Your task to perform on an android device: Add "usb-a to usb-b" to the cart on ebay.com Image 0: 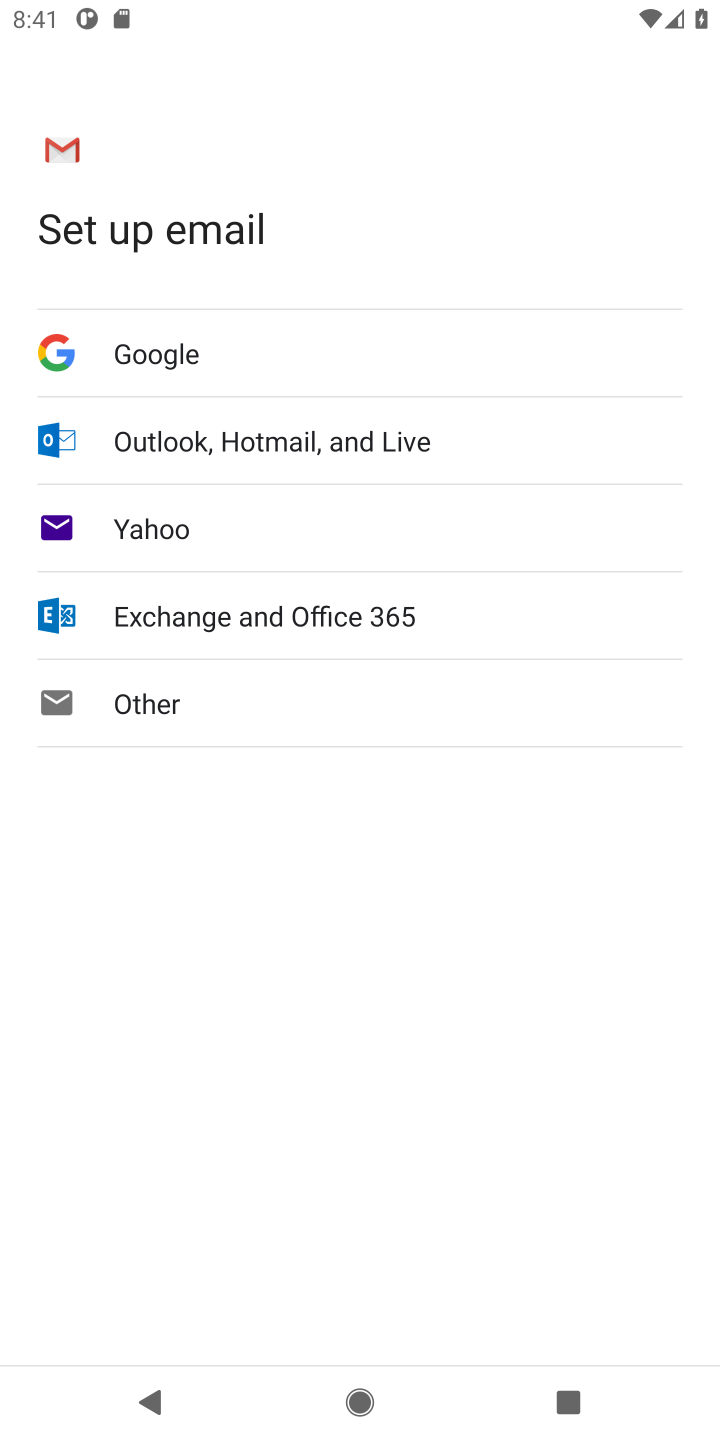
Step 0: press home button
Your task to perform on an android device: Add "usb-a to usb-b" to the cart on ebay.com Image 1: 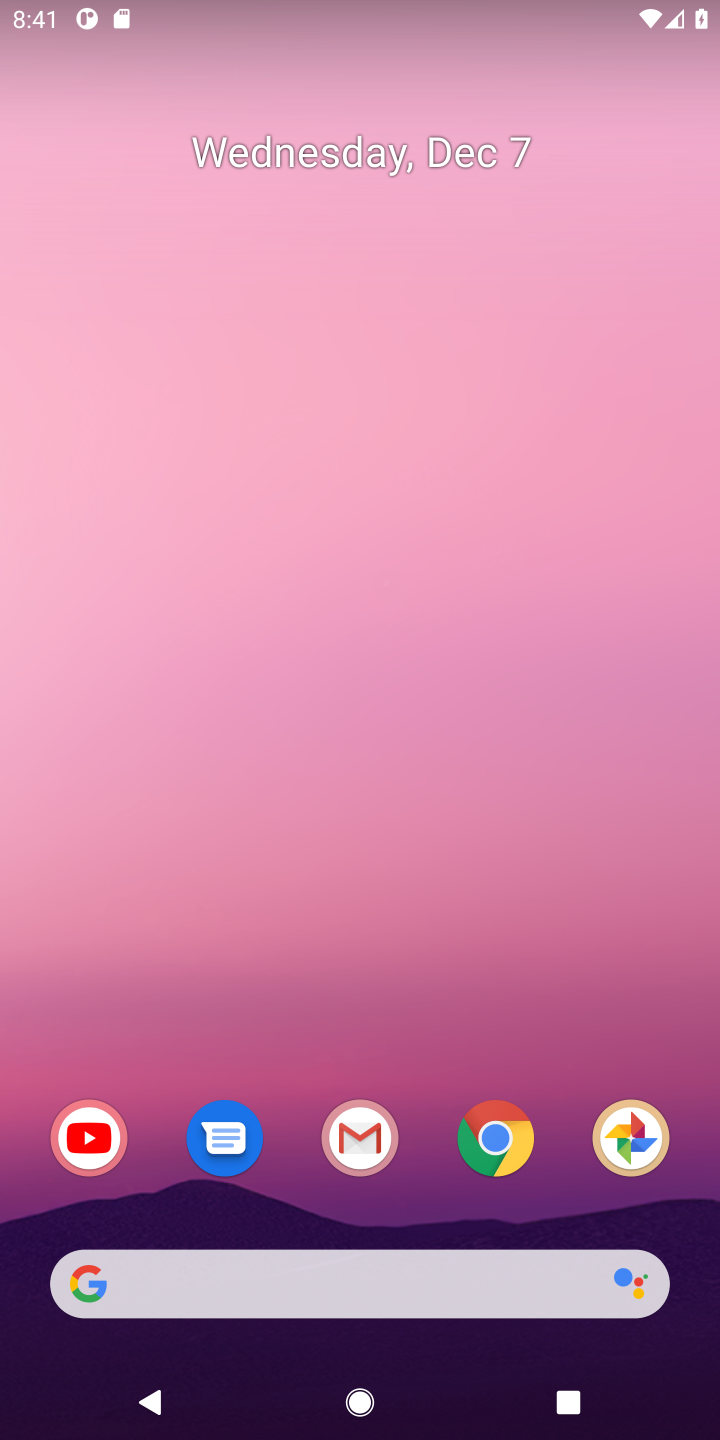
Step 1: click (189, 1286)
Your task to perform on an android device: Add "usb-a to usb-b" to the cart on ebay.com Image 2: 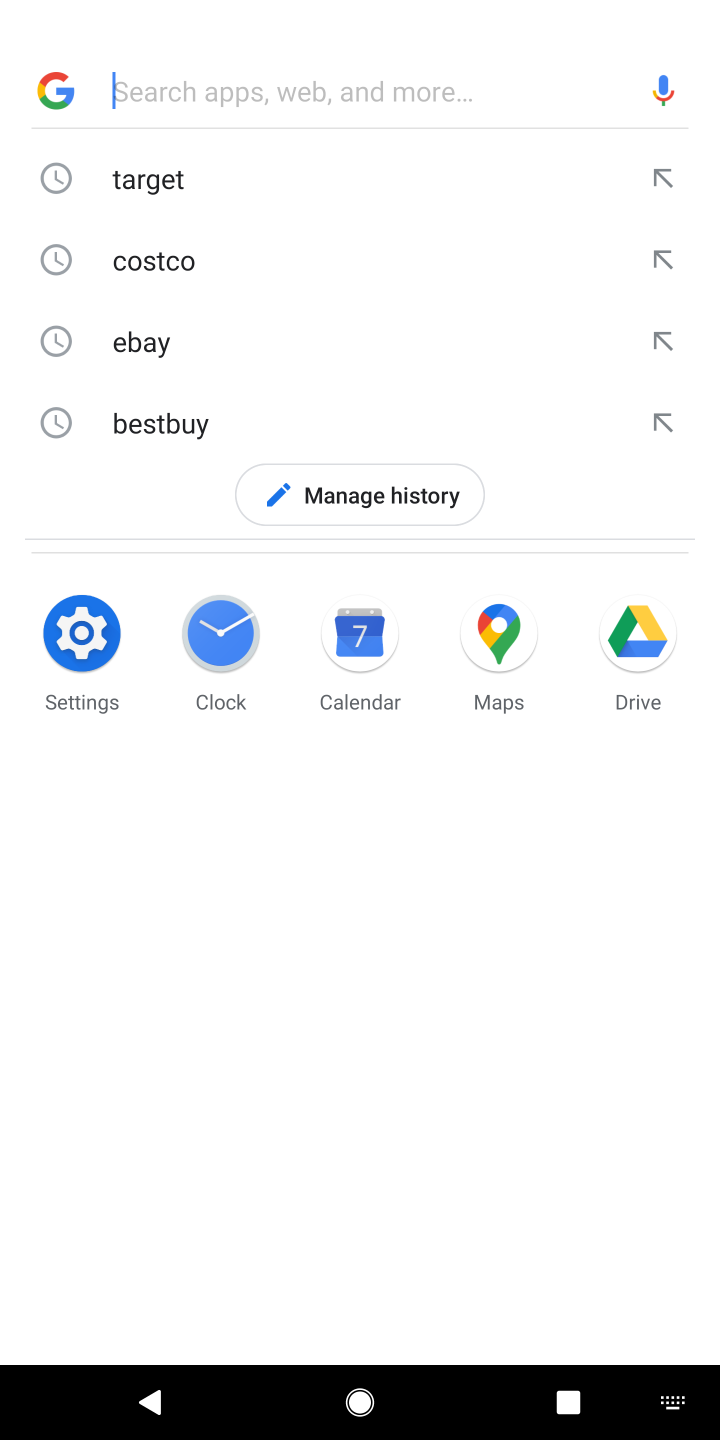
Step 2: press enter
Your task to perform on an android device: Add "usb-a to usb-b" to the cart on ebay.com Image 3: 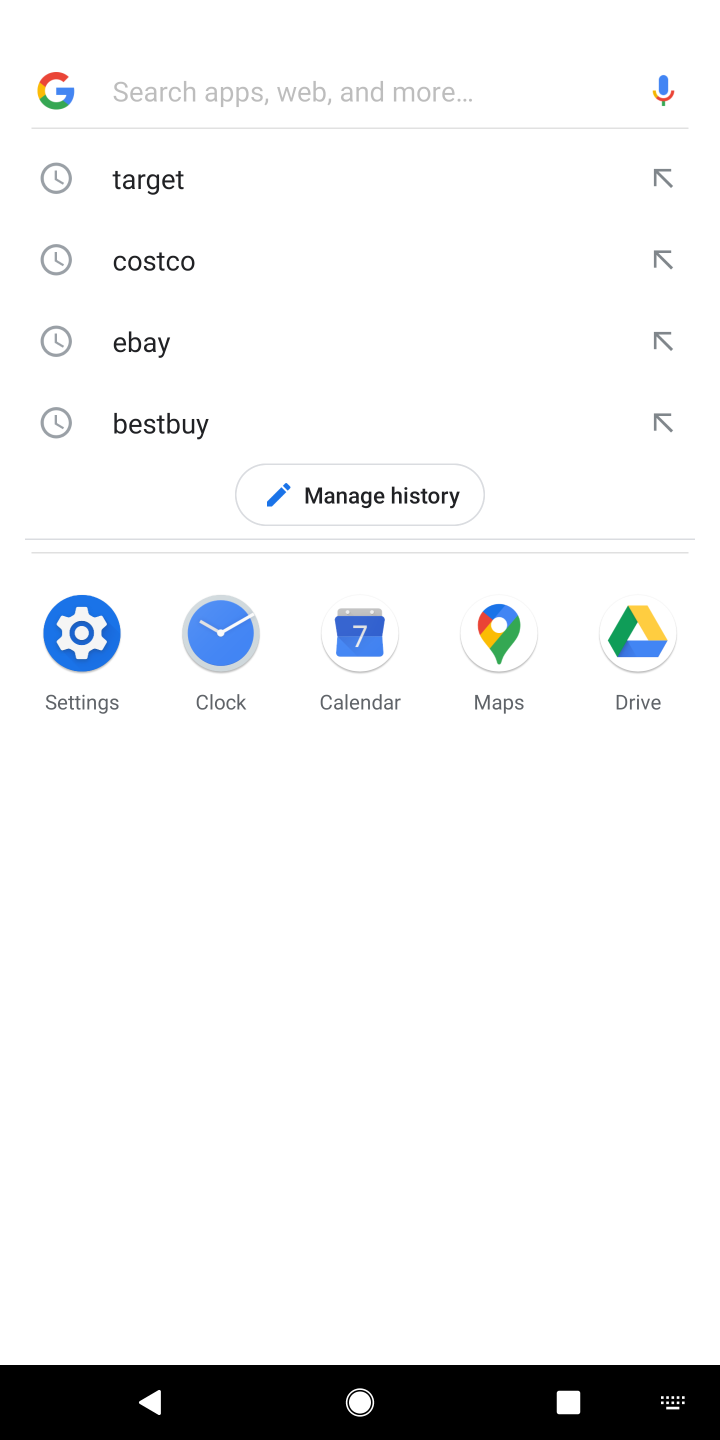
Step 3: type "ebay.com"
Your task to perform on an android device: Add "usb-a to usb-b" to the cart on ebay.com Image 4: 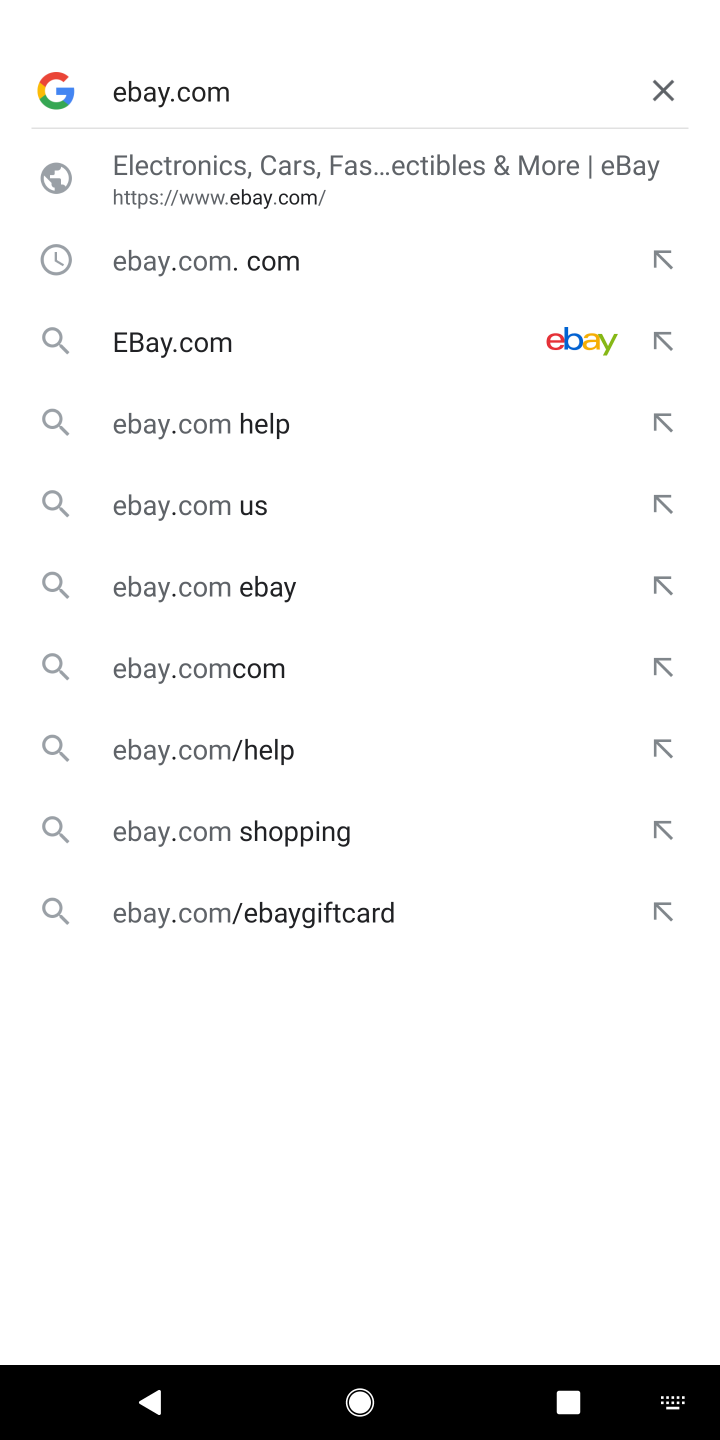
Step 4: press enter
Your task to perform on an android device: Add "usb-a to usb-b" to the cart on ebay.com Image 5: 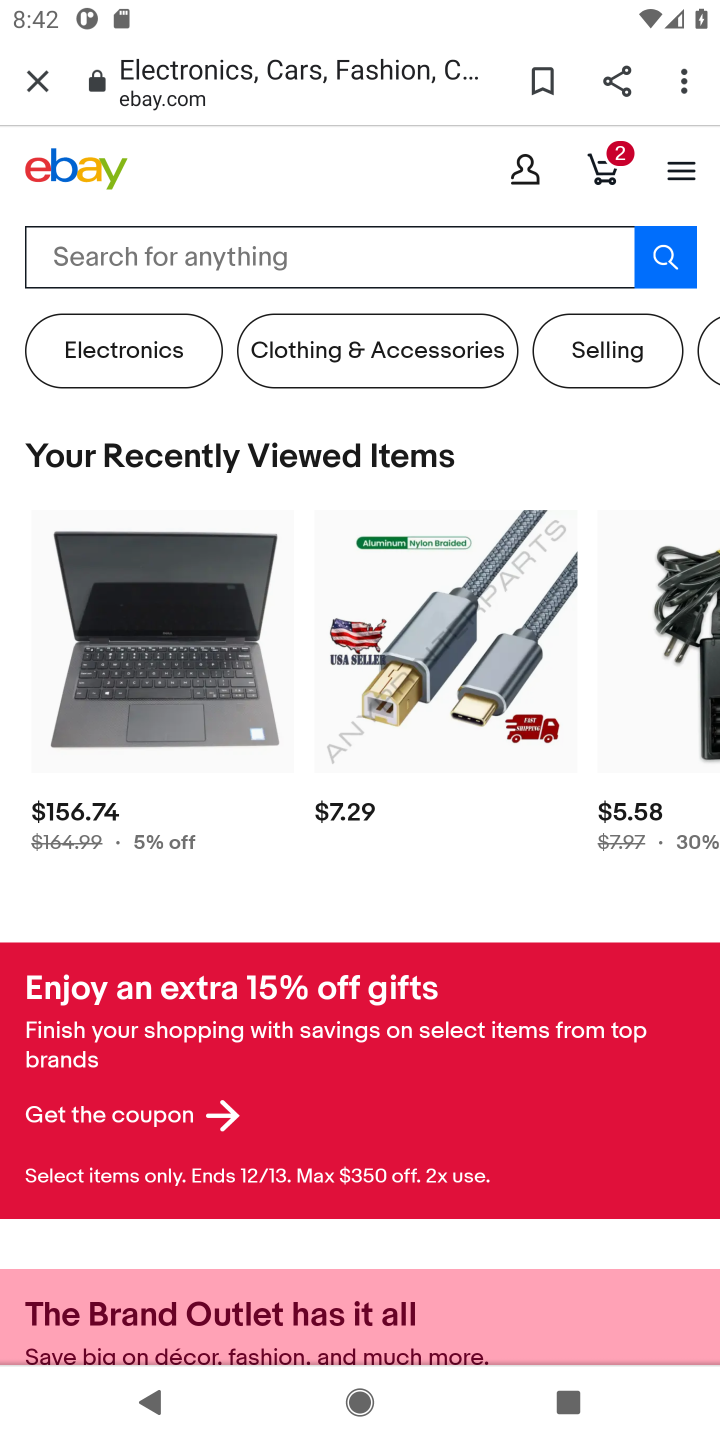
Step 5: click (285, 258)
Your task to perform on an android device: Add "usb-a to usb-b" to the cart on ebay.com Image 6: 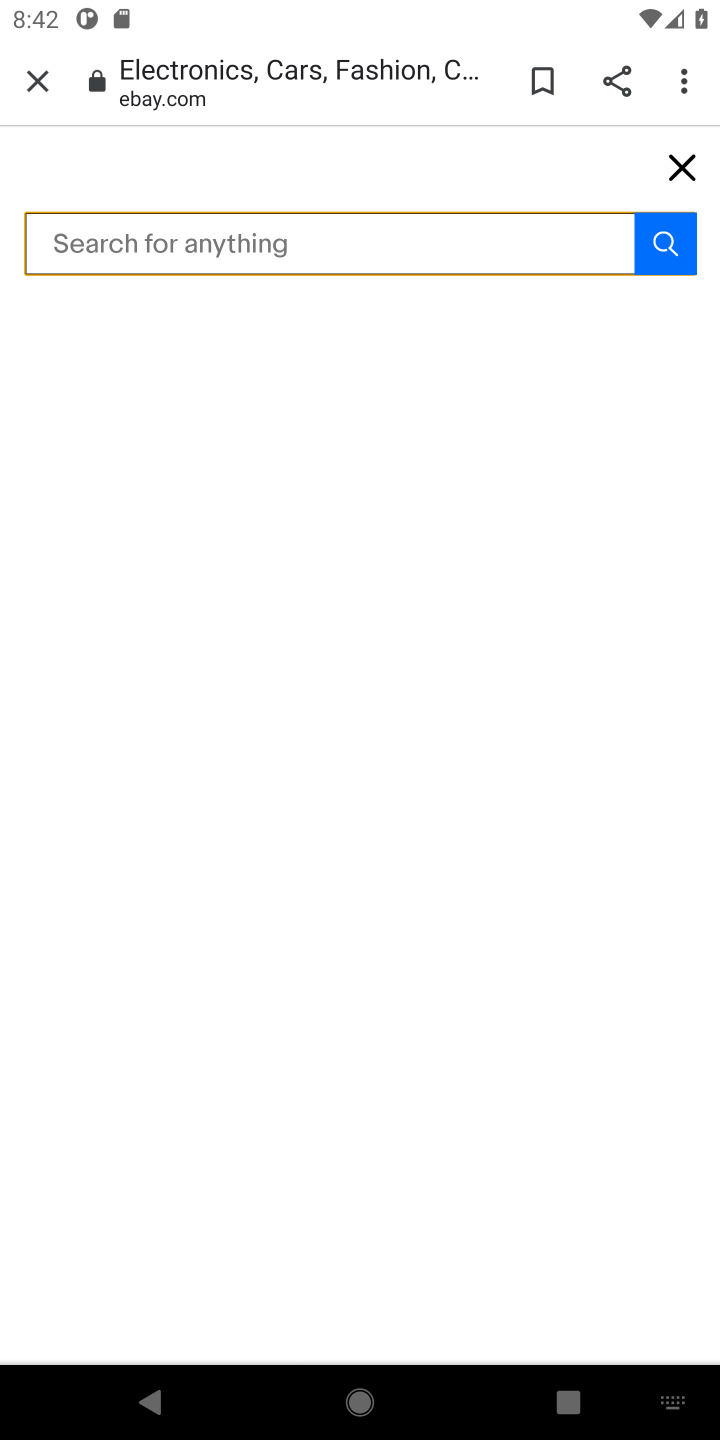
Step 6: type "usb-a to usb-b"
Your task to perform on an android device: Add "usb-a to usb-b" to the cart on ebay.com Image 7: 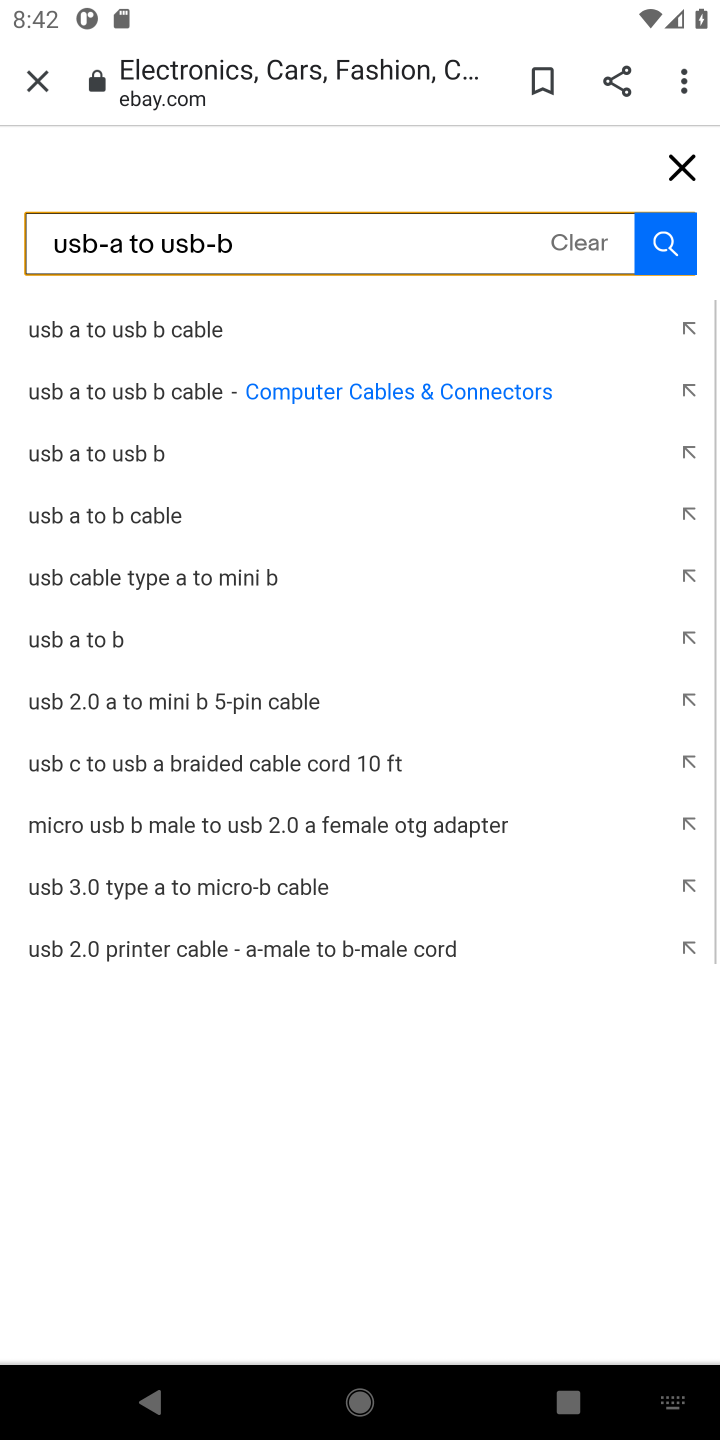
Step 7: press enter
Your task to perform on an android device: Add "usb-a to usb-b" to the cart on ebay.com Image 8: 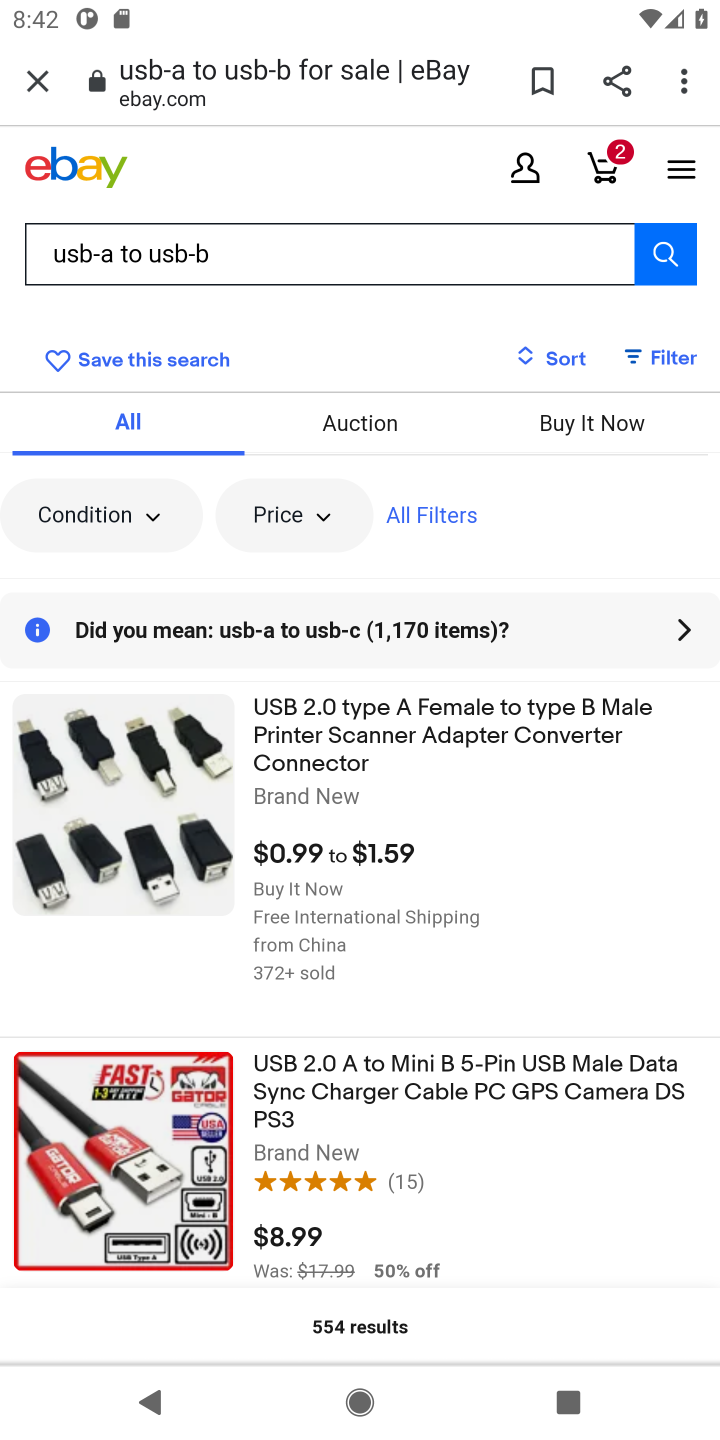
Step 8: drag from (457, 1173) to (455, 704)
Your task to perform on an android device: Add "usb-a to usb-b" to the cart on ebay.com Image 9: 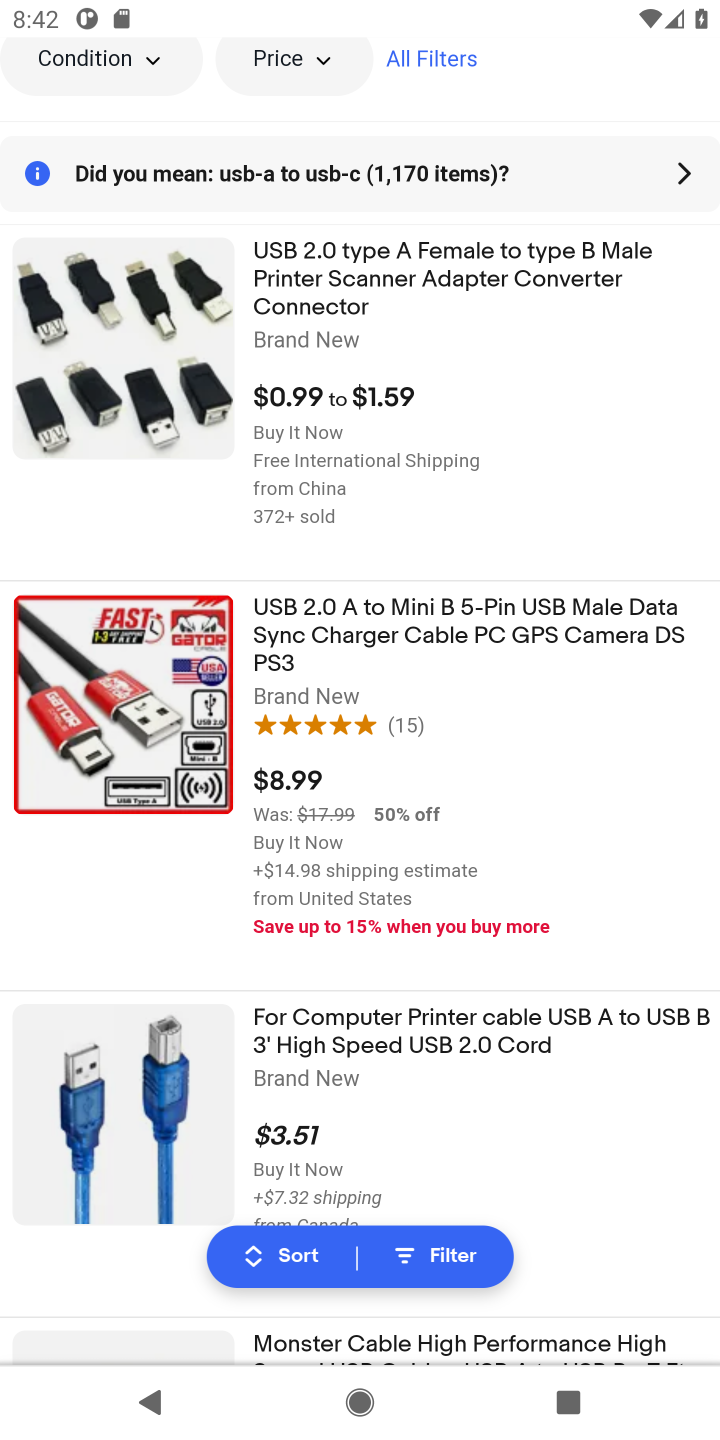
Step 9: click (461, 1042)
Your task to perform on an android device: Add "usb-a to usb-b" to the cart on ebay.com Image 10: 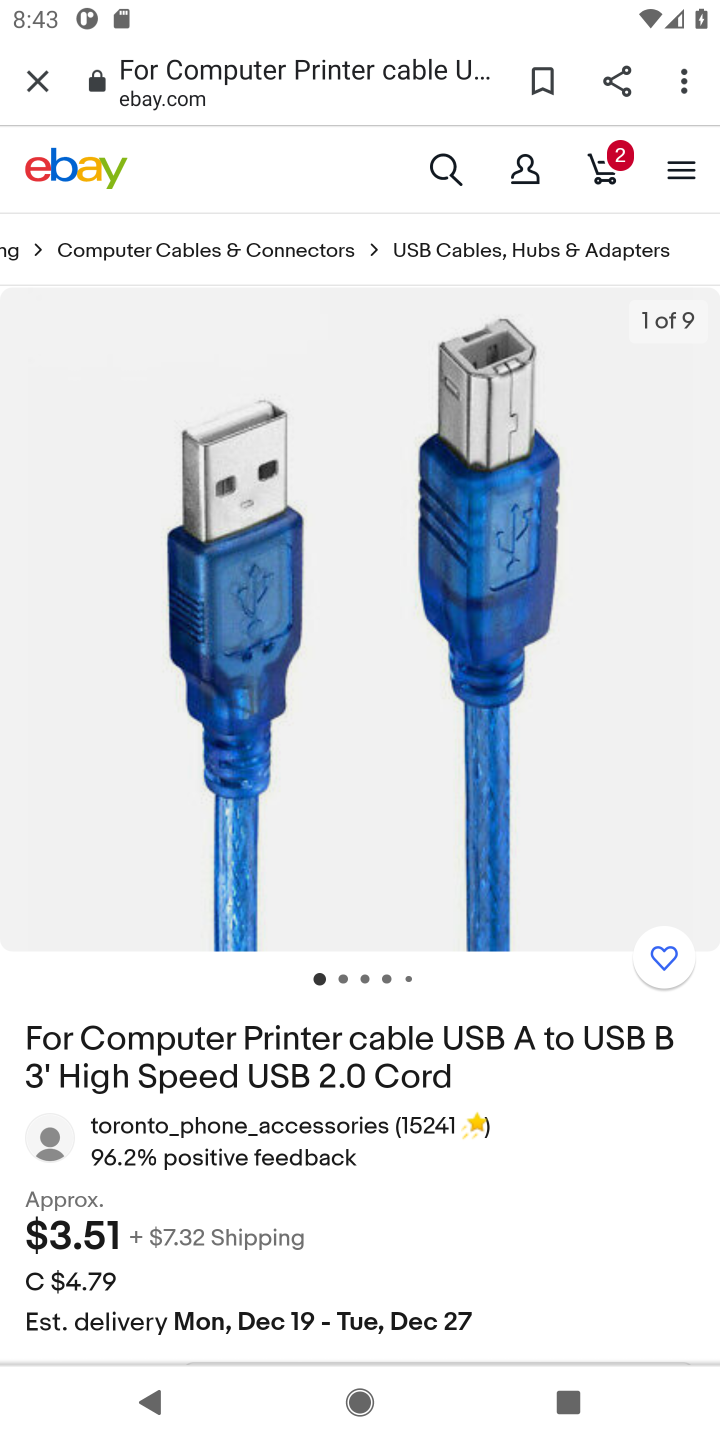
Step 10: drag from (386, 1041) to (384, 519)
Your task to perform on an android device: Add "usb-a to usb-b" to the cart on ebay.com Image 11: 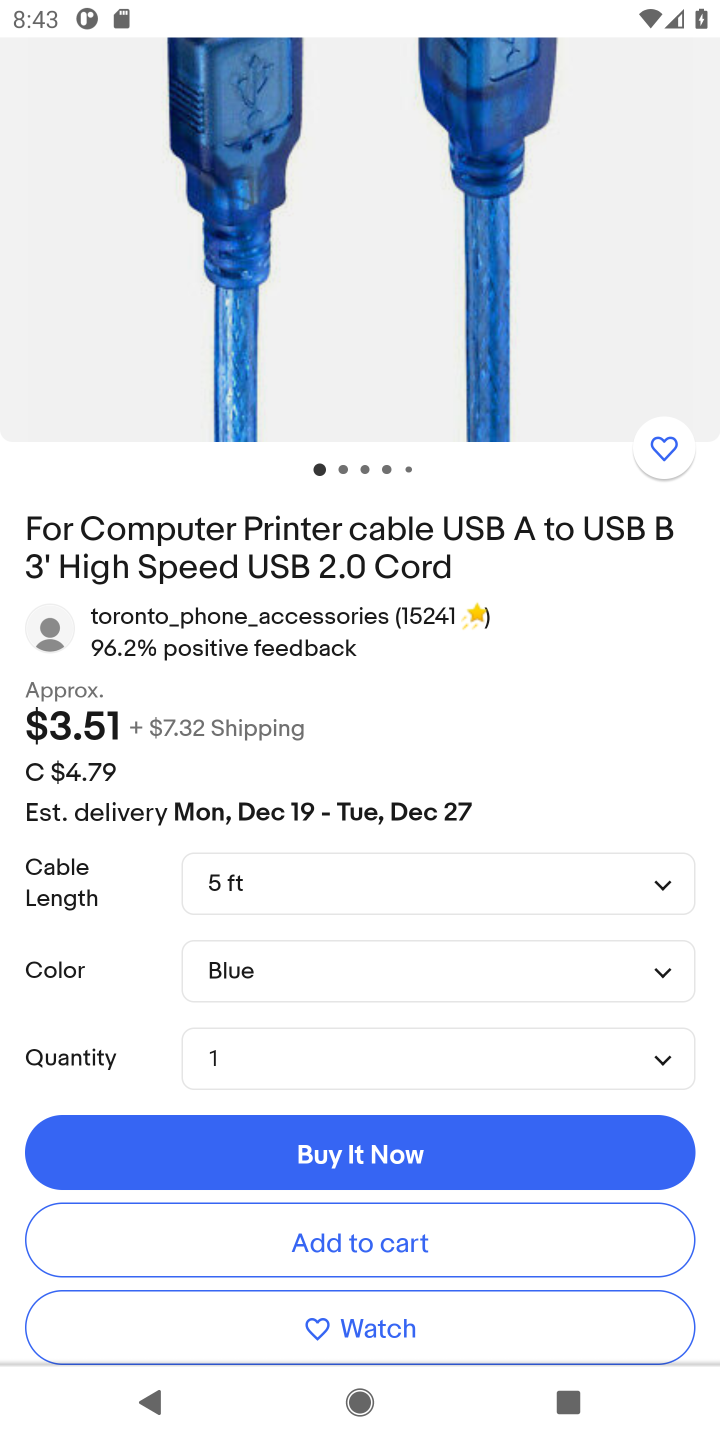
Step 11: drag from (465, 1243) to (497, 534)
Your task to perform on an android device: Add "usb-a to usb-b" to the cart on ebay.com Image 12: 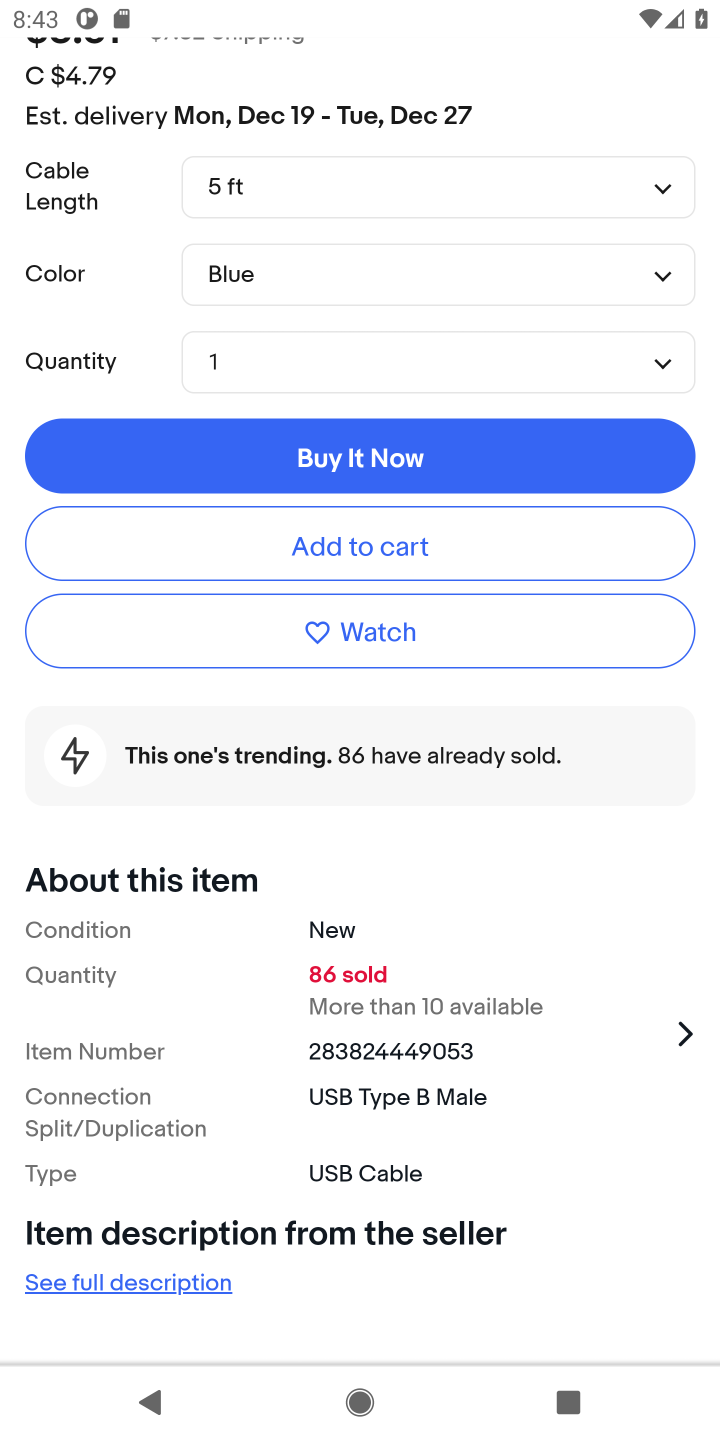
Step 12: click (369, 548)
Your task to perform on an android device: Add "usb-a to usb-b" to the cart on ebay.com Image 13: 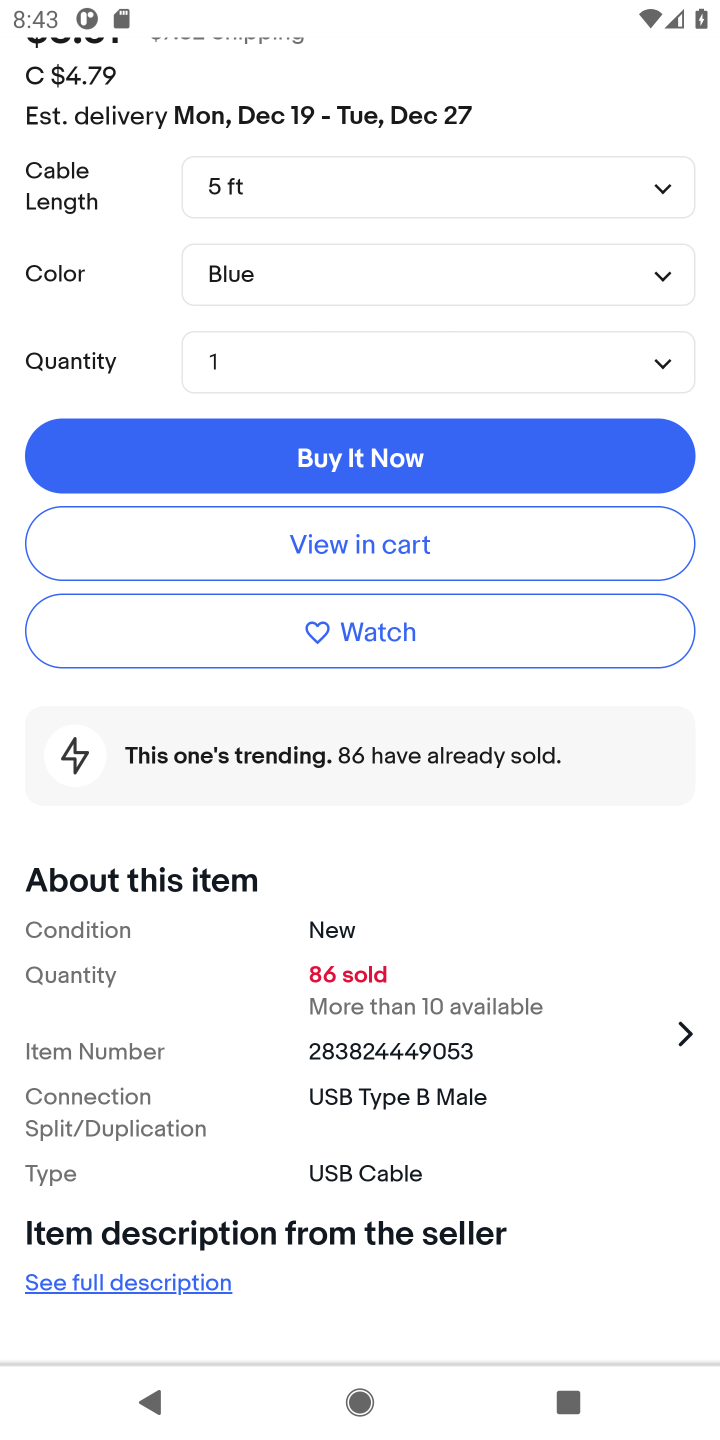
Step 13: task complete